Your task to perform on an android device: delete location history Image 0: 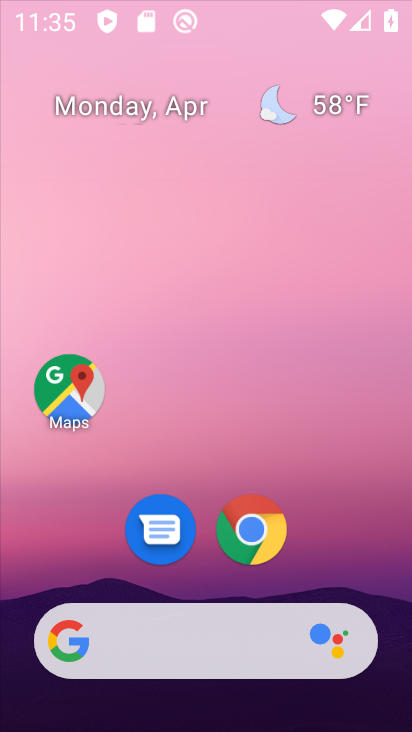
Step 0: drag from (382, 592) to (217, 17)
Your task to perform on an android device: delete location history Image 1: 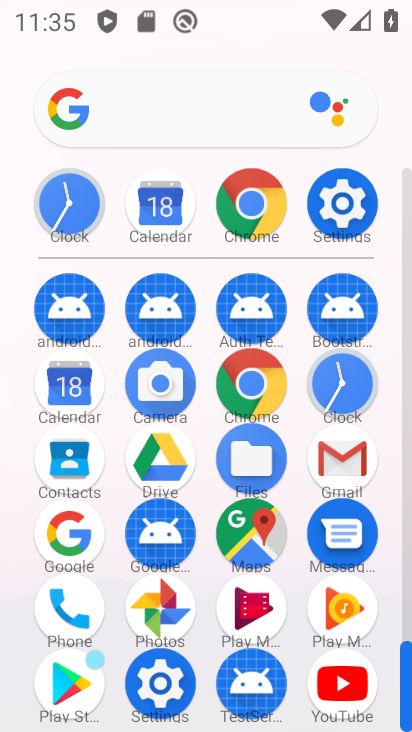
Step 1: click (312, 220)
Your task to perform on an android device: delete location history Image 2: 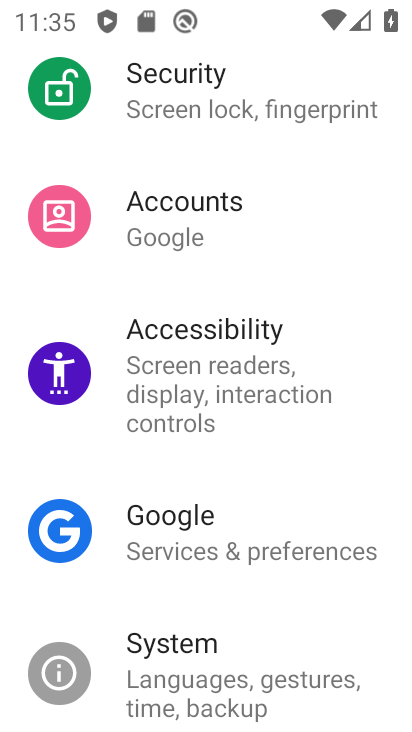
Step 2: drag from (75, 619) to (183, 155)
Your task to perform on an android device: delete location history Image 3: 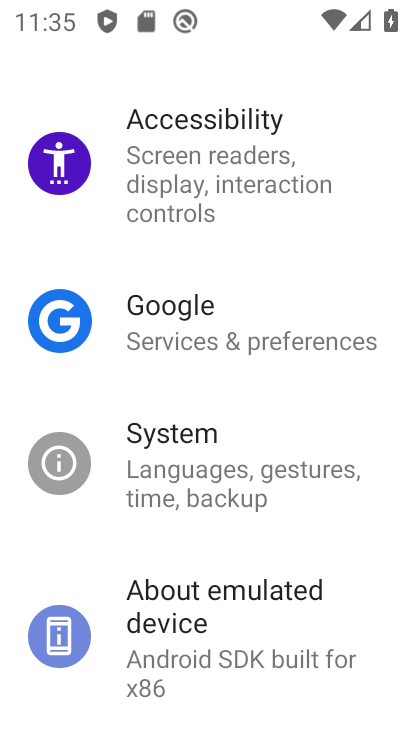
Step 3: drag from (230, 459) to (196, 608)
Your task to perform on an android device: delete location history Image 4: 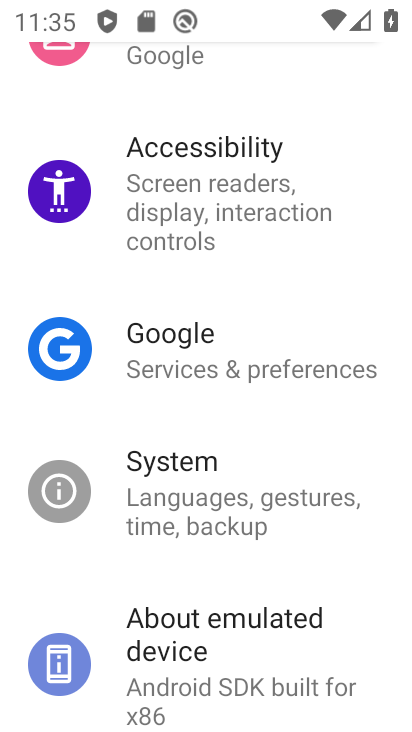
Step 4: drag from (124, 194) to (183, 571)
Your task to perform on an android device: delete location history Image 5: 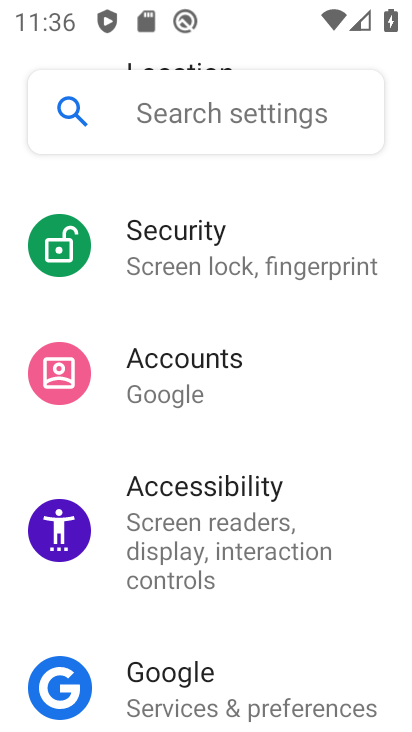
Step 5: drag from (145, 224) to (195, 515)
Your task to perform on an android device: delete location history Image 6: 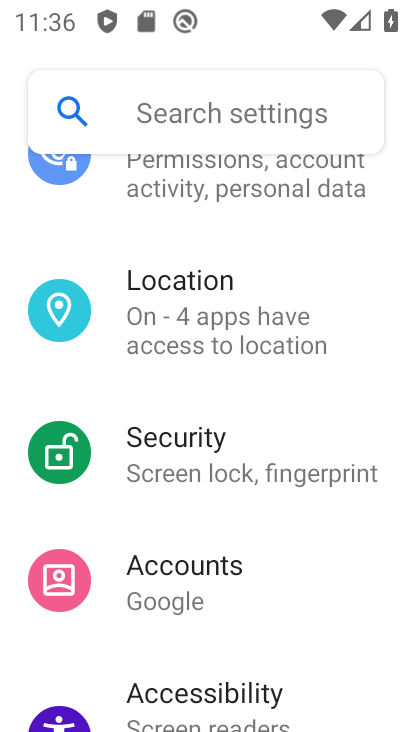
Step 6: click (165, 306)
Your task to perform on an android device: delete location history Image 7: 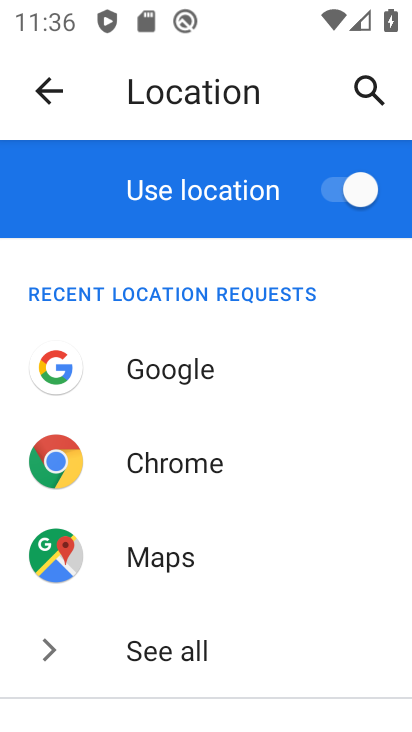
Step 7: drag from (111, 626) to (168, 63)
Your task to perform on an android device: delete location history Image 8: 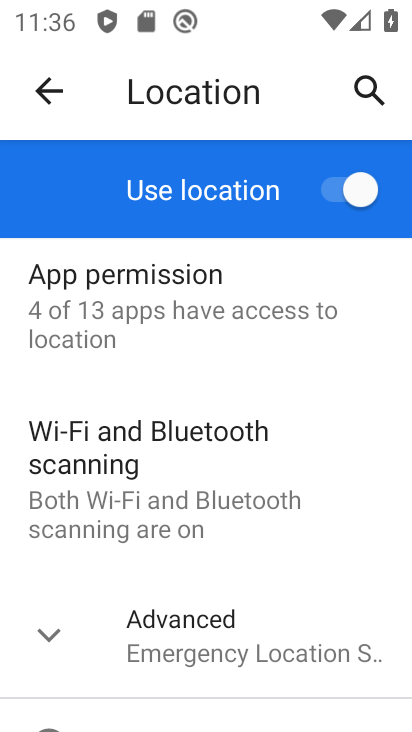
Step 8: click (91, 629)
Your task to perform on an android device: delete location history Image 9: 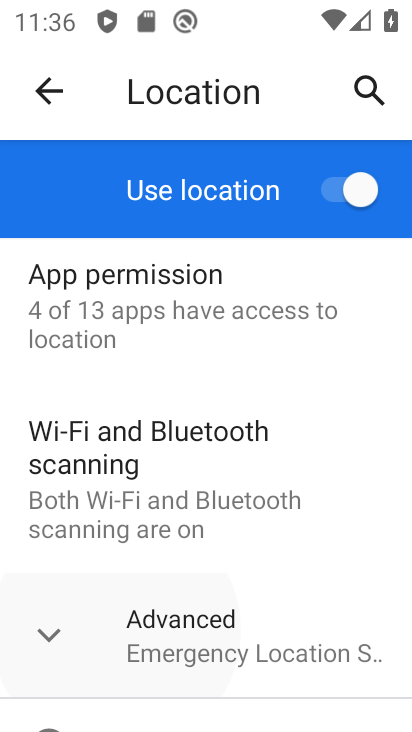
Step 9: drag from (116, 645) to (242, 113)
Your task to perform on an android device: delete location history Image 10: 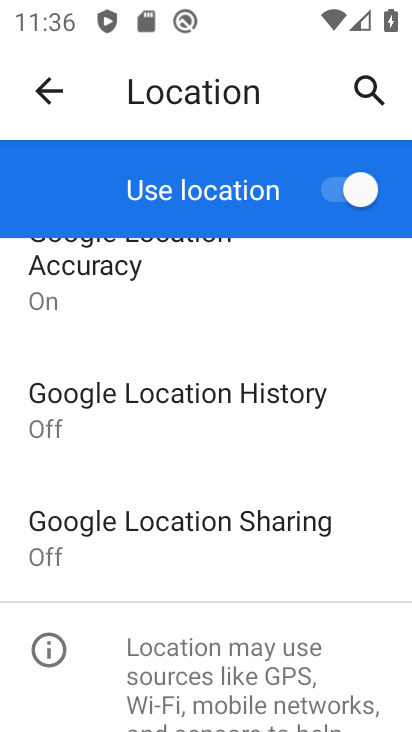
Step 10: click (150, 424)
Your task to perform on an android device: delete location history Image 11: 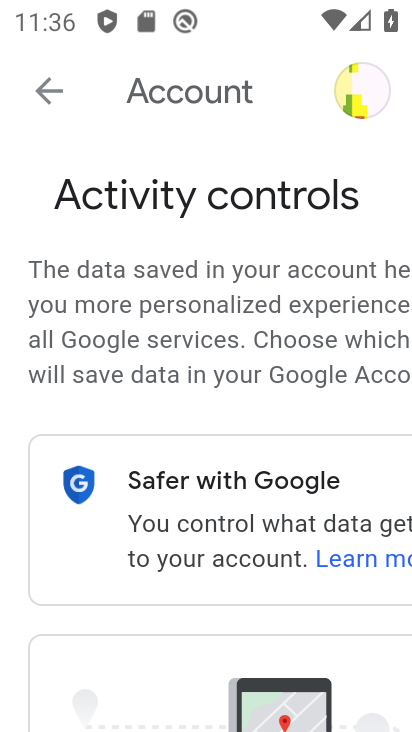
Step 11: drag from (292, 633) to (105, 59)
Your task to perform on an android device: delete location history Image 12: 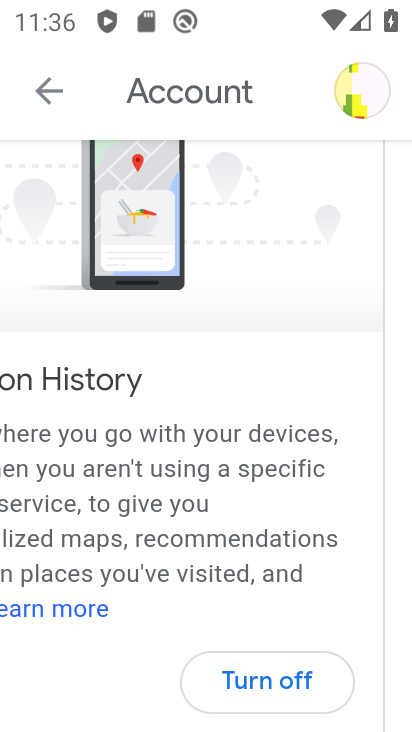
Step 12: drag from (188, 581) to (230, 119)
Your task to perform on an android device: delete location history Image 13: 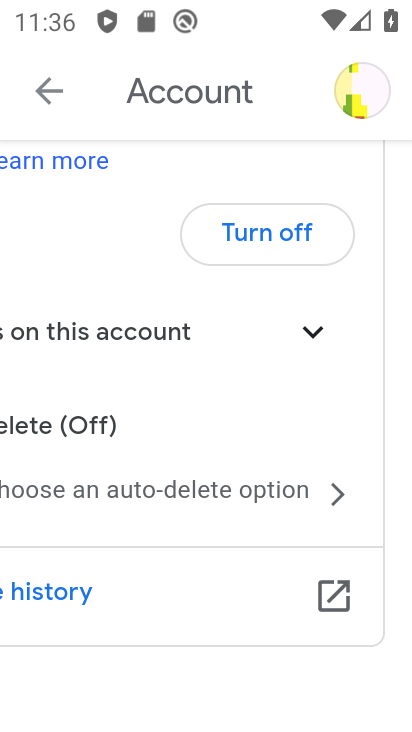
Step 13: click (133, 487)
Your task to perform on an android device: delete location history Image 14: 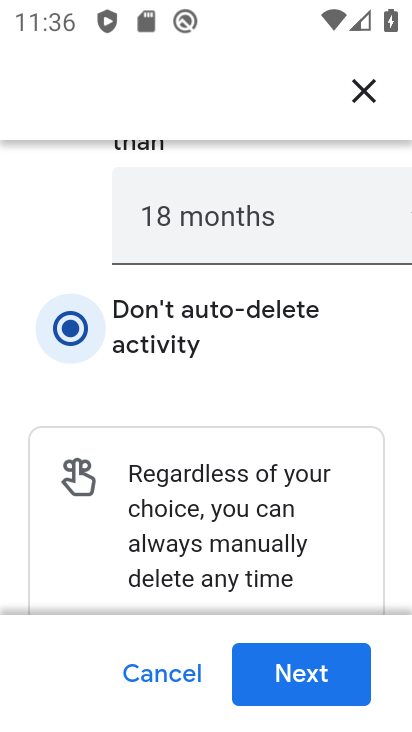
Step 14: click (321, 676)
Your task to perform on an android device: delete location history Image 15: 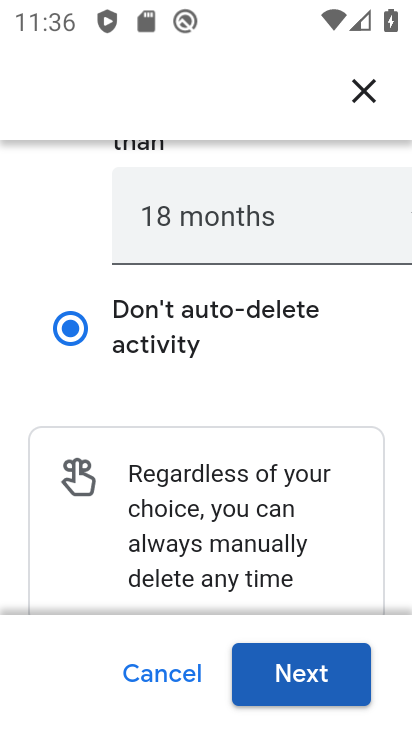
Step 15: click (280, 666)
Your task to perform on an android device: delete location history Image 16: 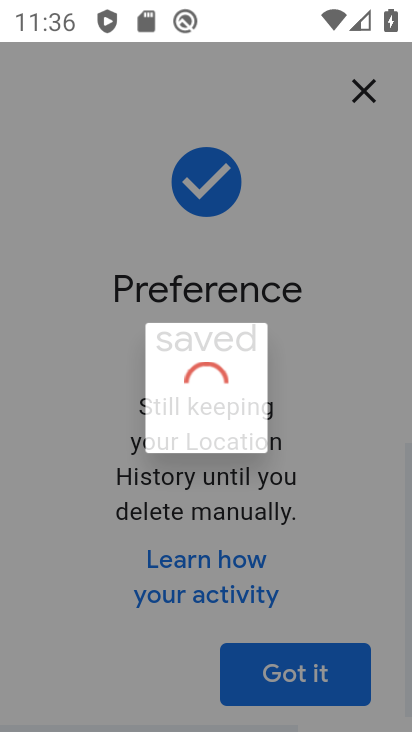
Step 16: task complete